Your task to perform on an android device: Clear the cart on walmart. Search for "razer blackwidow" on walmart, select the first entry, and add it to the cart. Image 0: 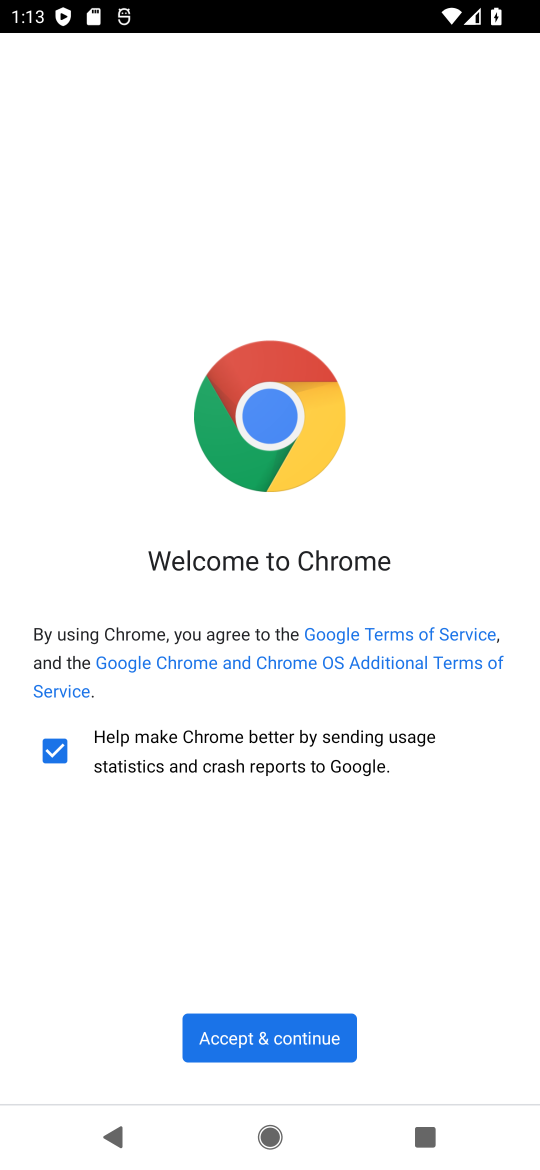
Step 0: press home button
Your task to perform on an android device: Clear the cart on walmart. Search for "razer blackwidow" on walmart, select the first entry, and add it to the cart. Image 1: 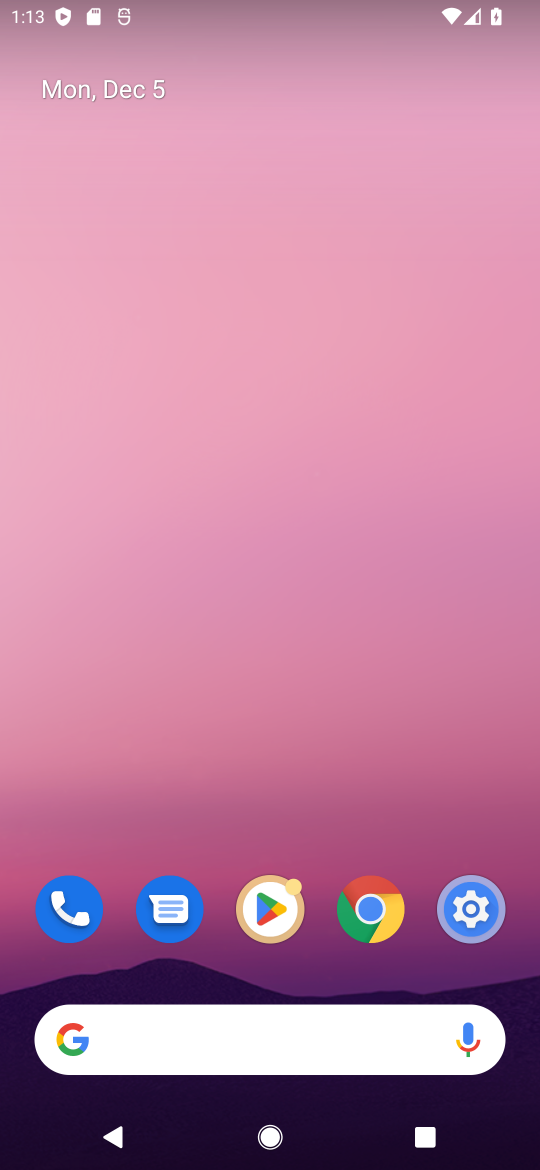
Step 1: drag from (287, 602) to (278, 99)
Your task to perform on an android device: Clear the cart on walmart. Search for "razer blackwidow" on walmart, select the first entry, and add it to the cart. Image 2: 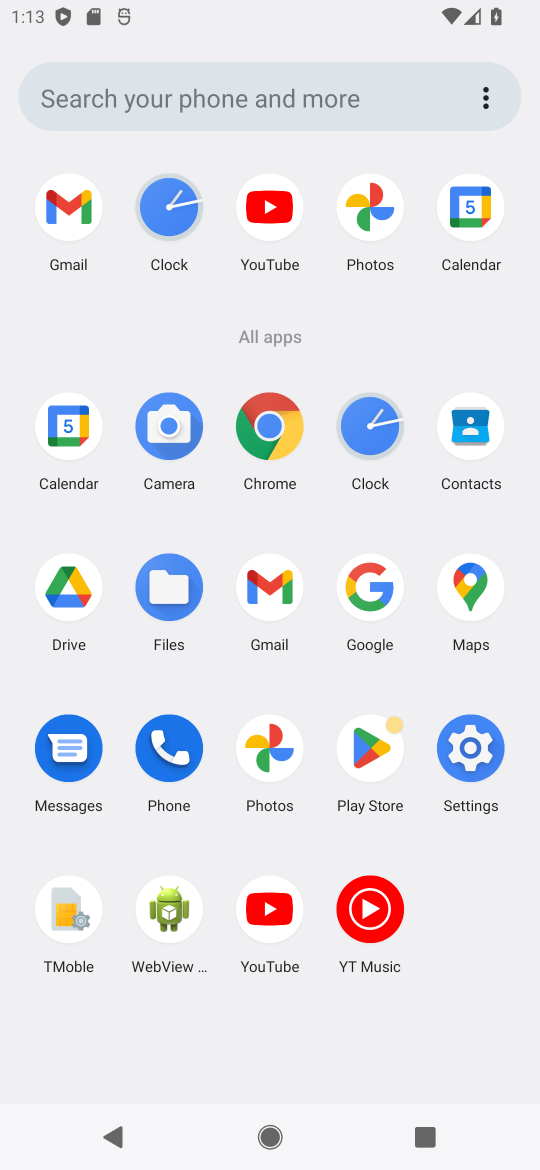
Step 2: click (361, 587)
Your task to perform on an android device: Clear the cart on walmart. Search for "razer blackwidow" on walmart, select the first entry, and add it to the cart. Image 3: 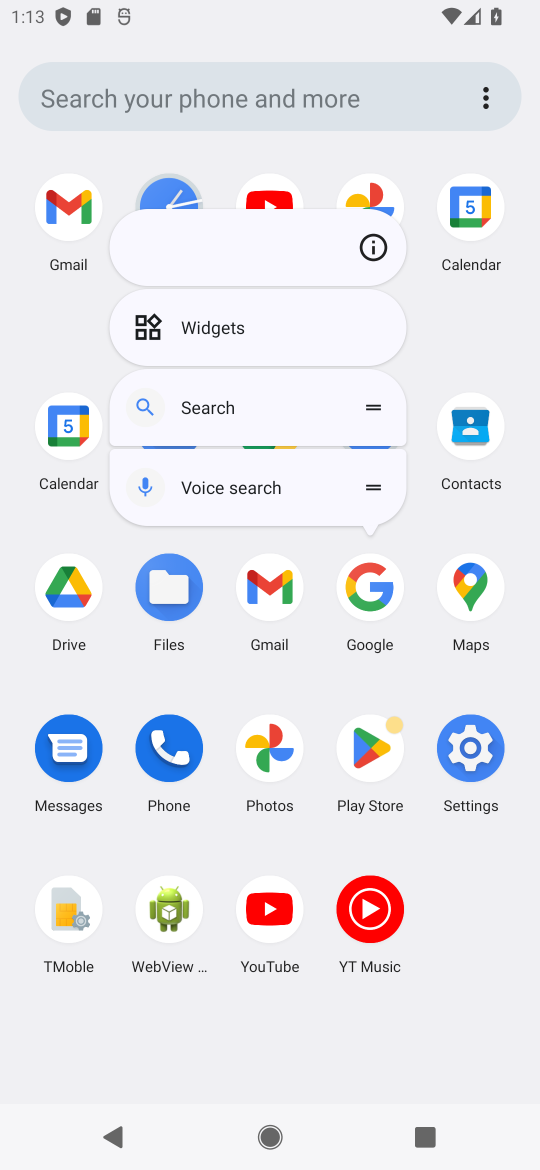
Step 3: click (361, 587)
Your task to perform on an android device: Clear the cart on walmart. Search for "razer blackwidow" on walmart, select the first entry, and add it to the cart. Image 4: 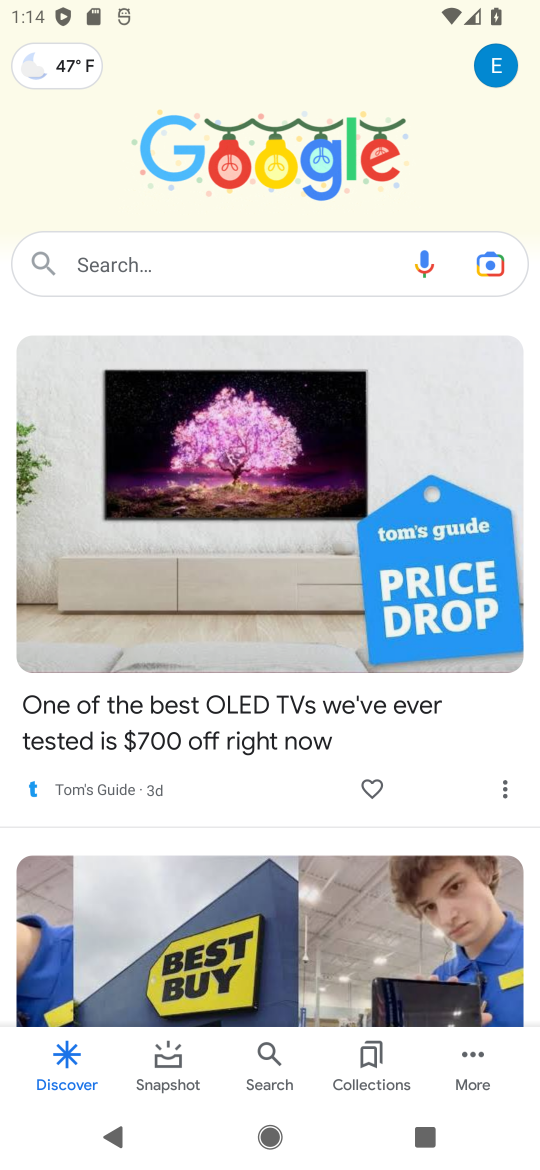
Step 4: click (254, 268)
Your task to perform on an android device: Clear the cart on walmart. Search for "razer blackwidow" on walmart, select the first entry, and add it to the cart. Image 5: 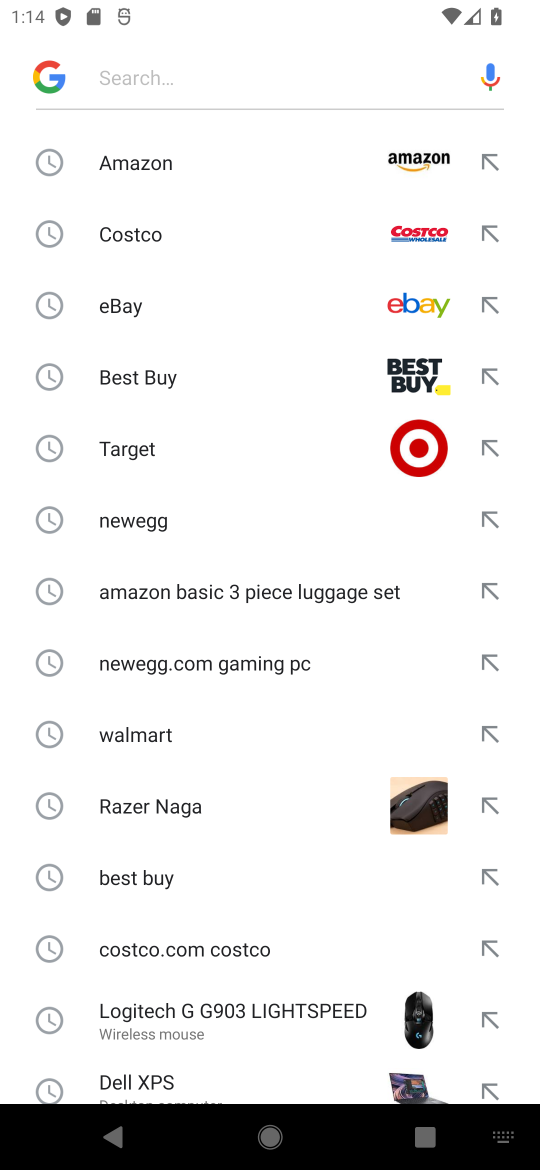
Step 5: drag from (156, 748) to (157, 236)
Your task to perform on an android device: Clear the cart on walmart. Search for "razer blackwidow" on walmart, select the first entry, and add it to the cart. Image 6: 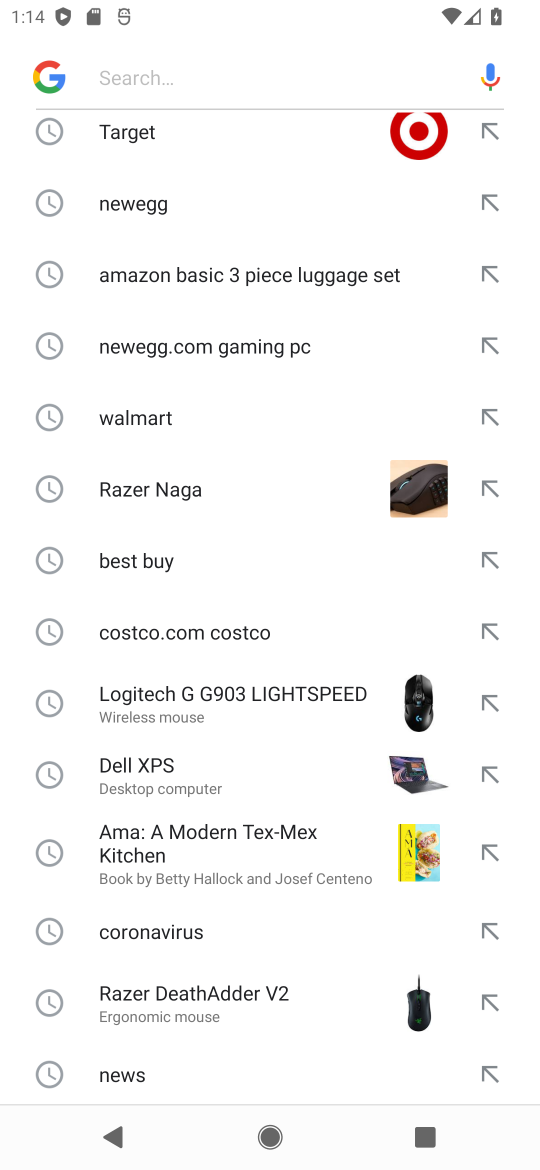
Step 6: drag from (174, 1012) to (157, 529)
Your task to perform on an android device: Clear the cart on walmart. Search for "razer blackwidow" on walmart, select the first entry, and add it to the cart. Image 7: 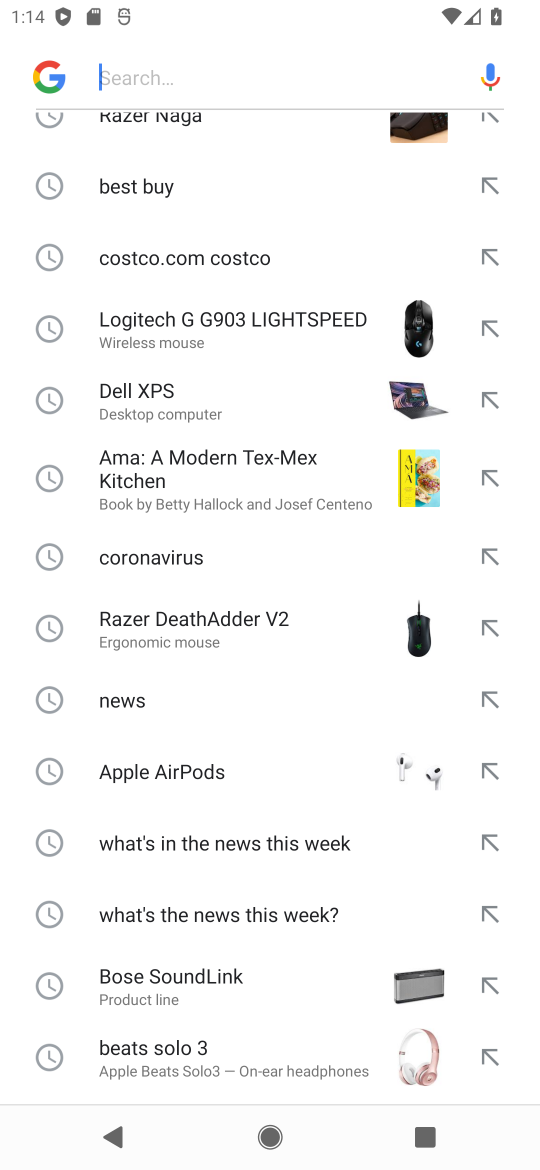
Step 7: type "walmart"
Your task to perform on an android device: Clear the cart on walmart. Search for "razer blackwidow" on walmart, select the first entry, and add it to the cart. Image 8: 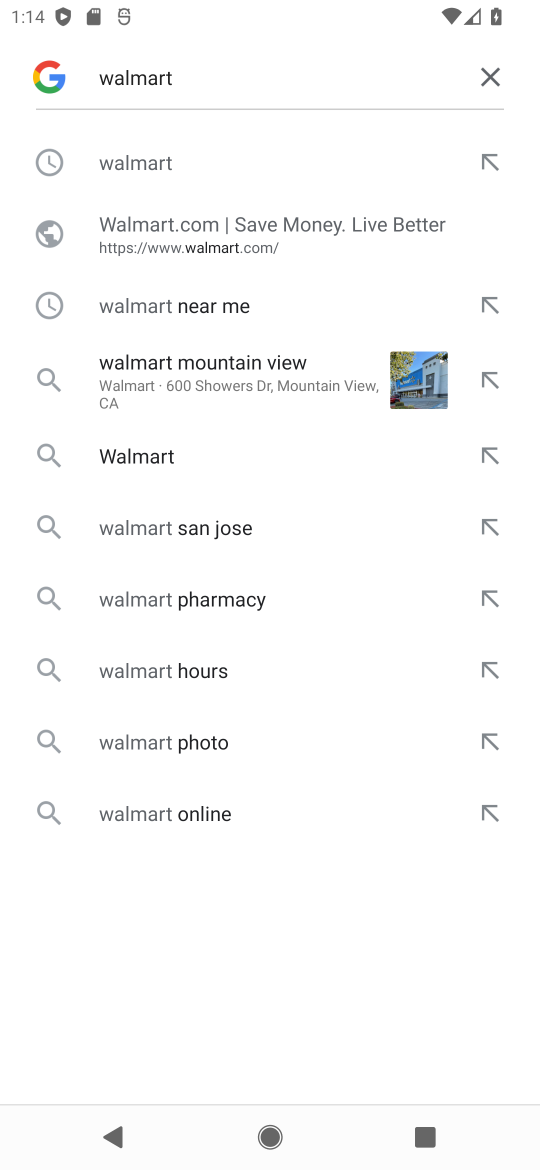
Step 8: click (174, 235)
Your task to perform on an android device: Clear the cart on walmart. Search for "razer blackwidow" on walmart, select the first entry, and add it to the cart. Image 9: 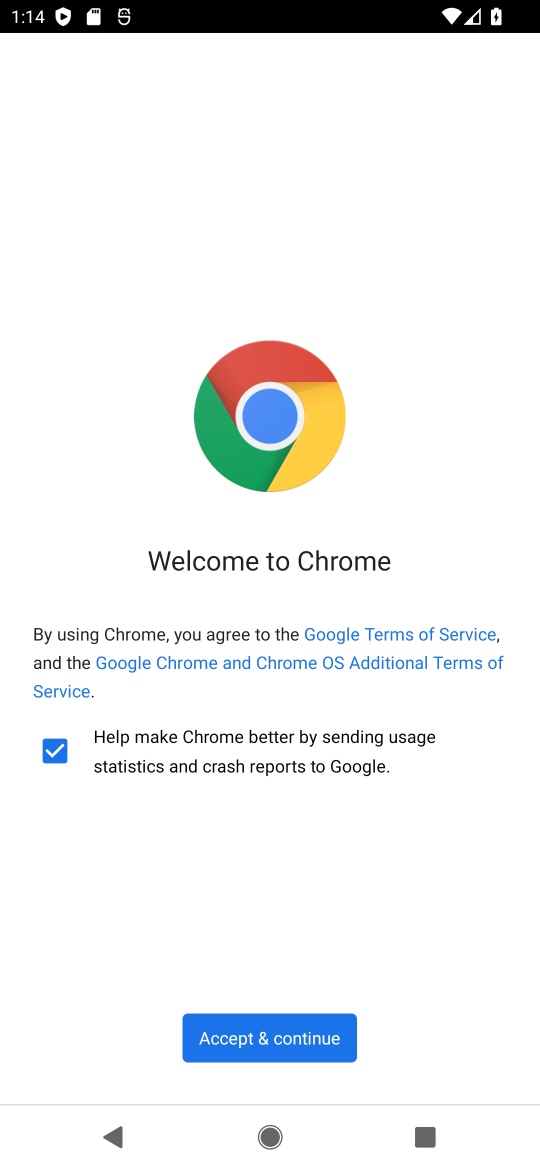
Step 9: click (281, 1038)
Your task to perform on an android device: Clear the cart on walmart. Search for "razer blackwidow" on walmart, select the first entry, and add it to the cart. Image 10: 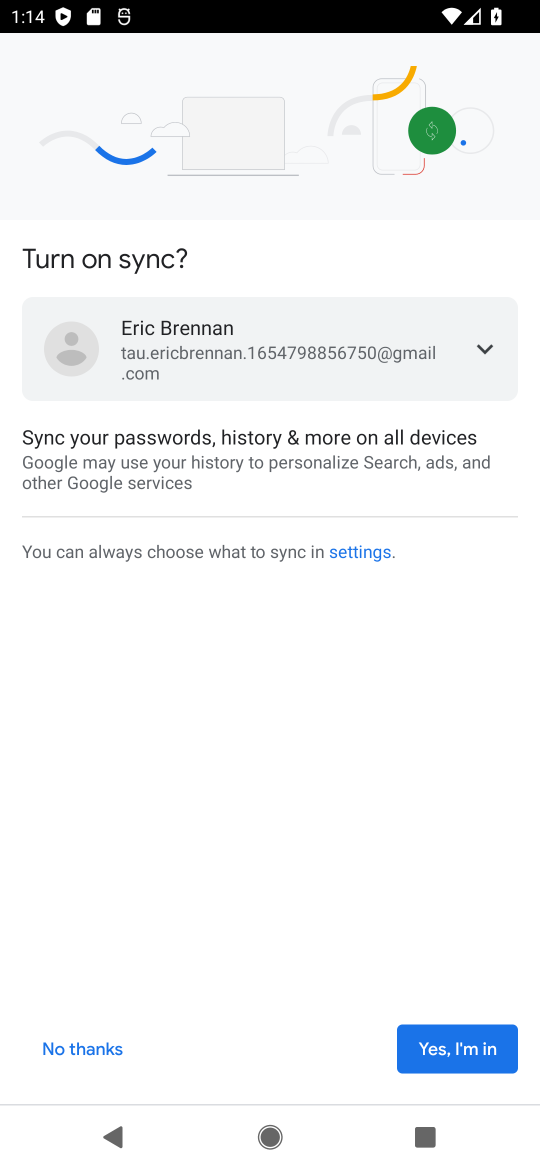
Step 10: click (404, 1063)
Your task to perform on an android device: Clear the cart on walmart. Search for "razer blackwidow" on walmart, select the first entry, and add it to the cart. Image 11: 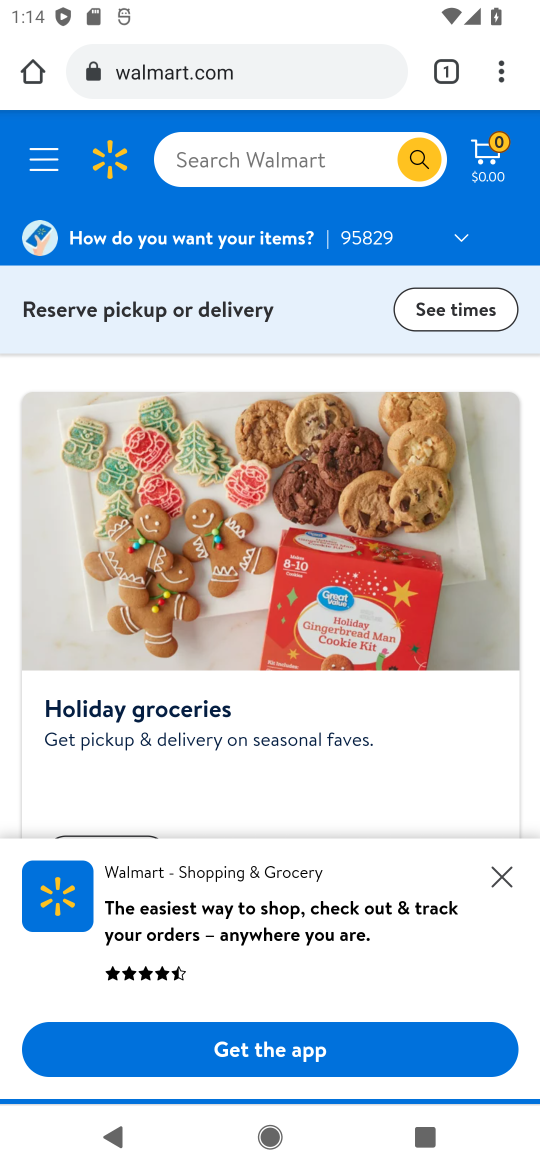
Step 11: click (208, 160)
Your task to perform on an android device: Clear the cart on walmart. Search for "razer blackwidow" on walmart, select the first entry, and add it to the cart. Image 12: 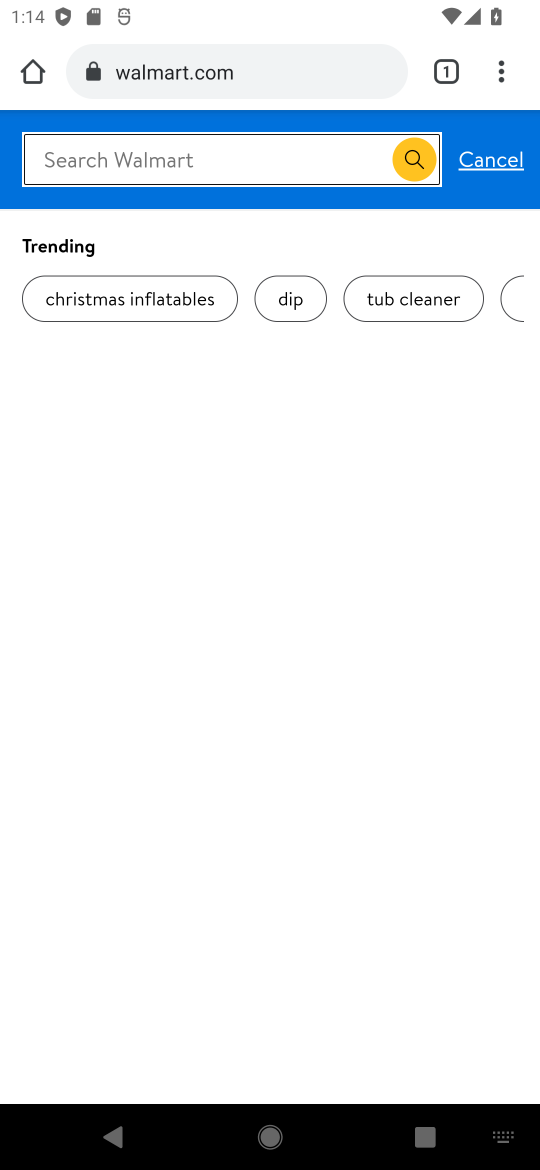
Step 12: type "razer blackwidow"
Your task to perform on an android device: Clear the cart on walmart. Search for "razer blackwidow" on walmart, select the first entry, and add it to the cart. Image 13: 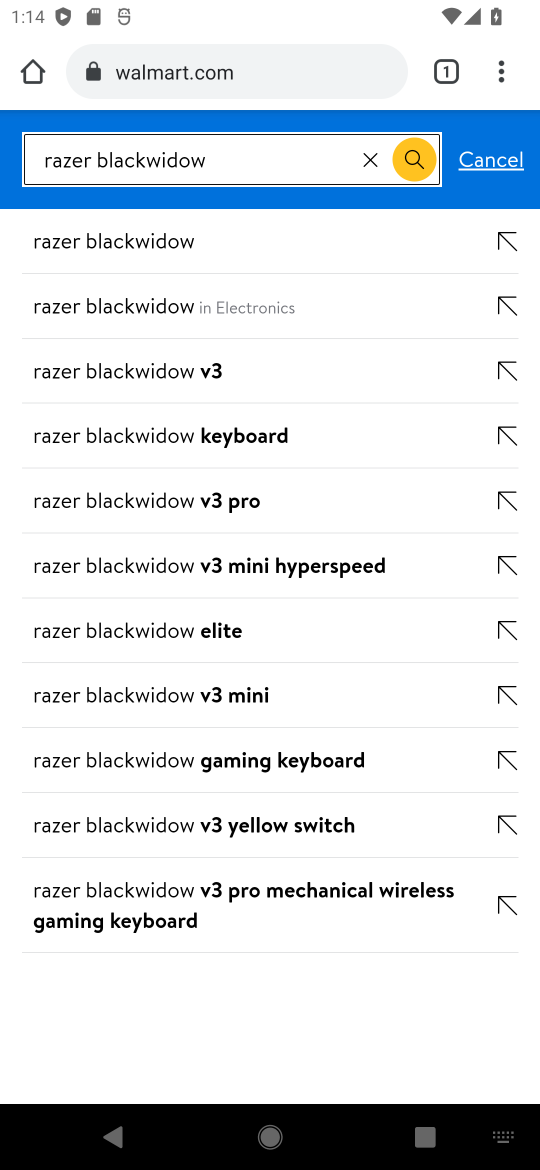
Step 13: click (121, 239)
Your task to perform on an android device: Clear the cart on walmart. Search for "razer blackwidow" on walmart, select the first entry, and add it to the cart. Image 14: 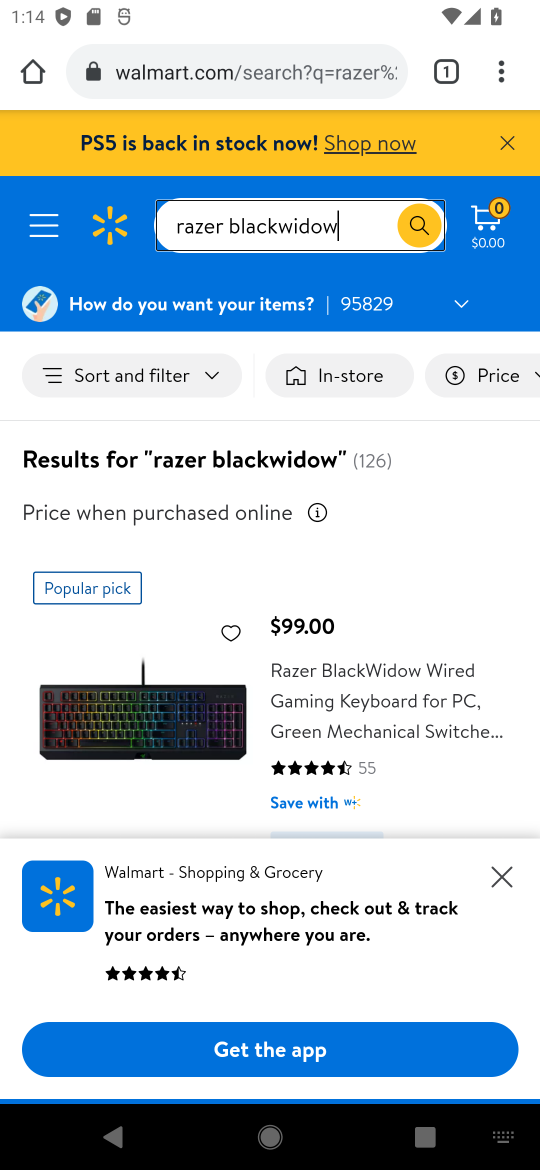
Step 14: drag from (276, 796) to (238, 317)
Your task to perform on an android device: Clear the cart on walmart. Search for "razer blackwidow" on walmart, select the first entry, and add it to the cart. Image 15: 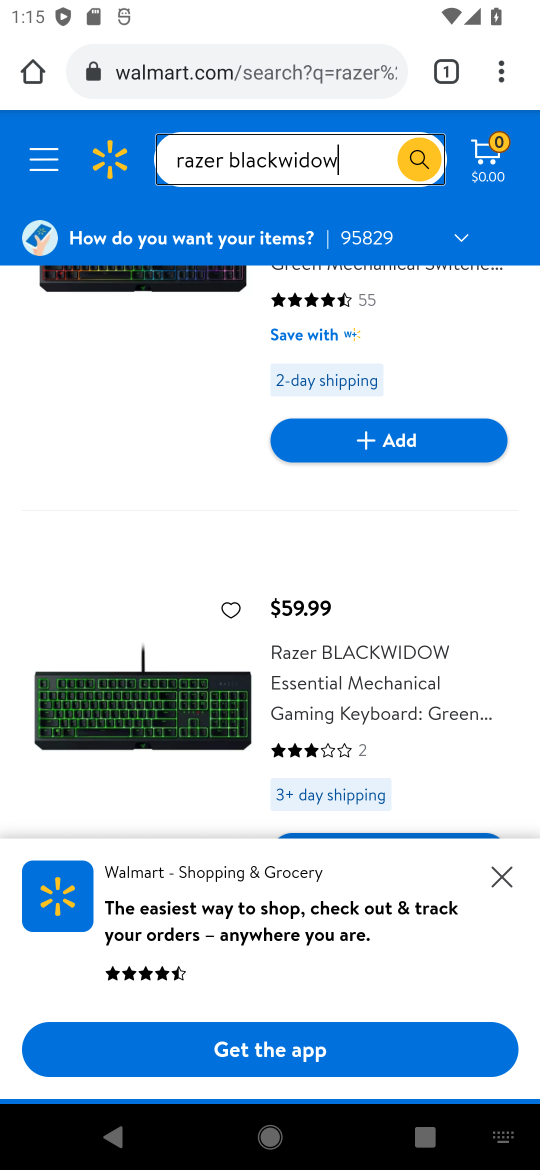
Step 15: click (407, 444)
Your task to perform on an android device: Clear the cart on walmart. Search for "razer blackwidow" on walmart, select the first entry, and add it to the cart. Image 16: 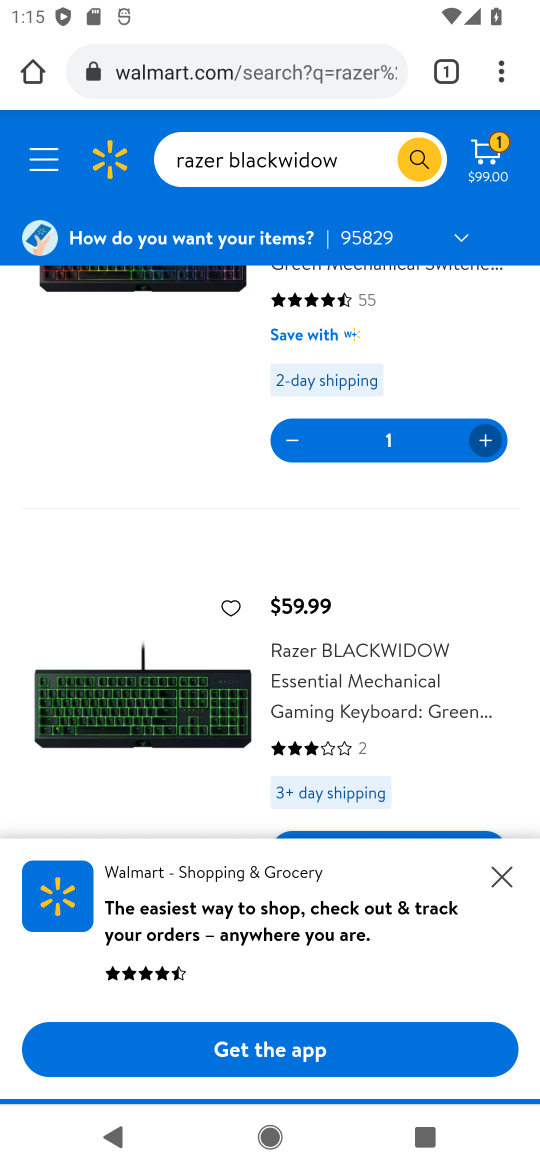
Step 16: click (491, 874)
Your task to perform on an android device: Clear the cart on walmart. Search for "razer blackwidow" on walmart, select the first entry, and add it to the cart. Image 17: 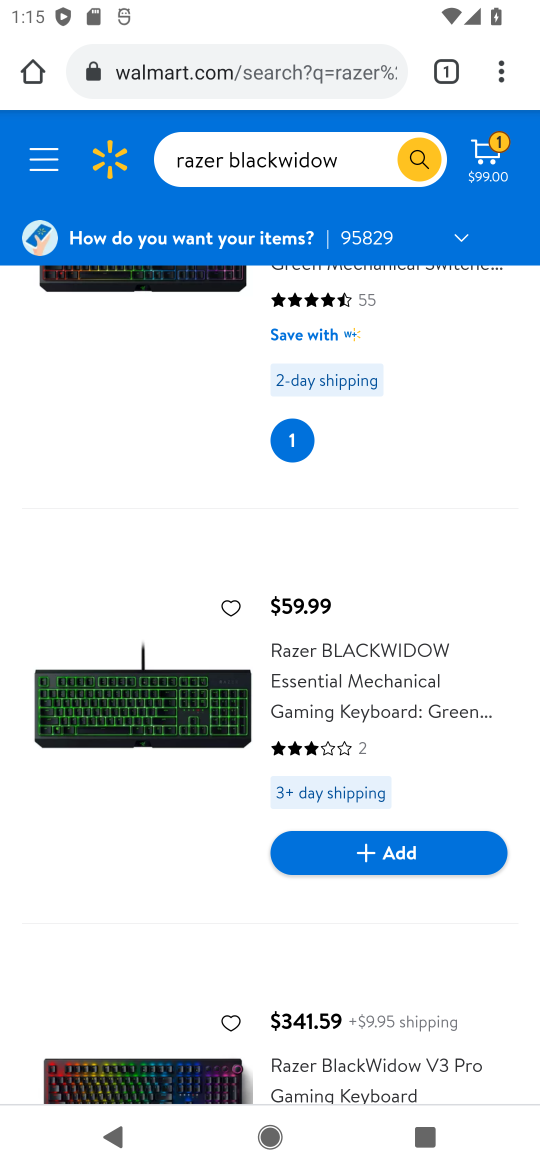
Step 17: click (488, 151)
Your task to perform on an android device: Clear the cart on walmart. Search for "razer blackwidow" on walmart, select the first entry, and add it to the cart. Image 18: 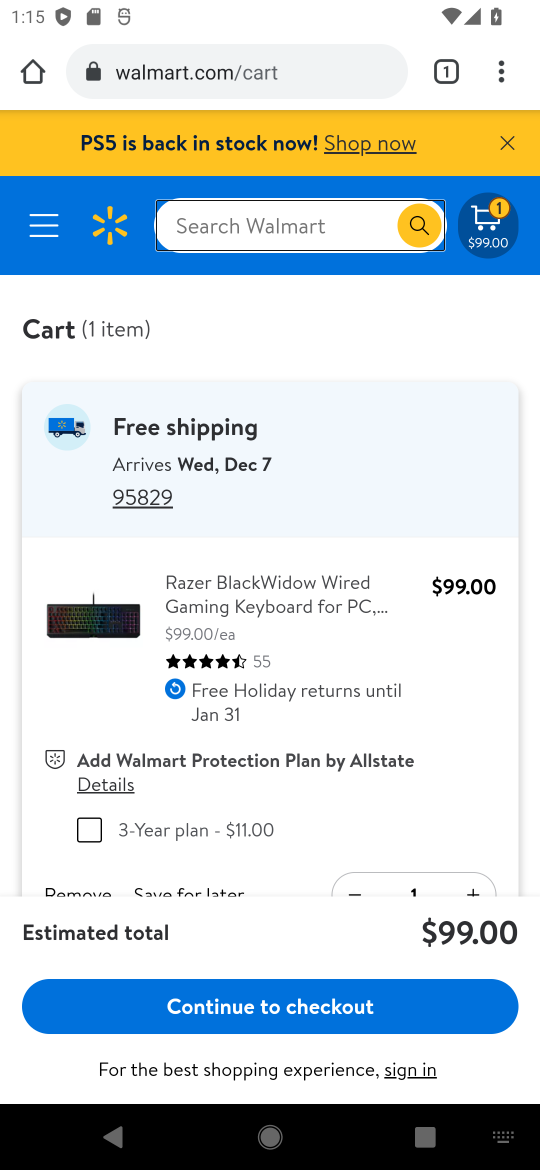
Step 18: click (311, 1008)
Your task to perform on an android device: Clear the cart on walmart. Search for "razer blackwidow" on walmart, select the first entry, and add it to the cart. Image 19: 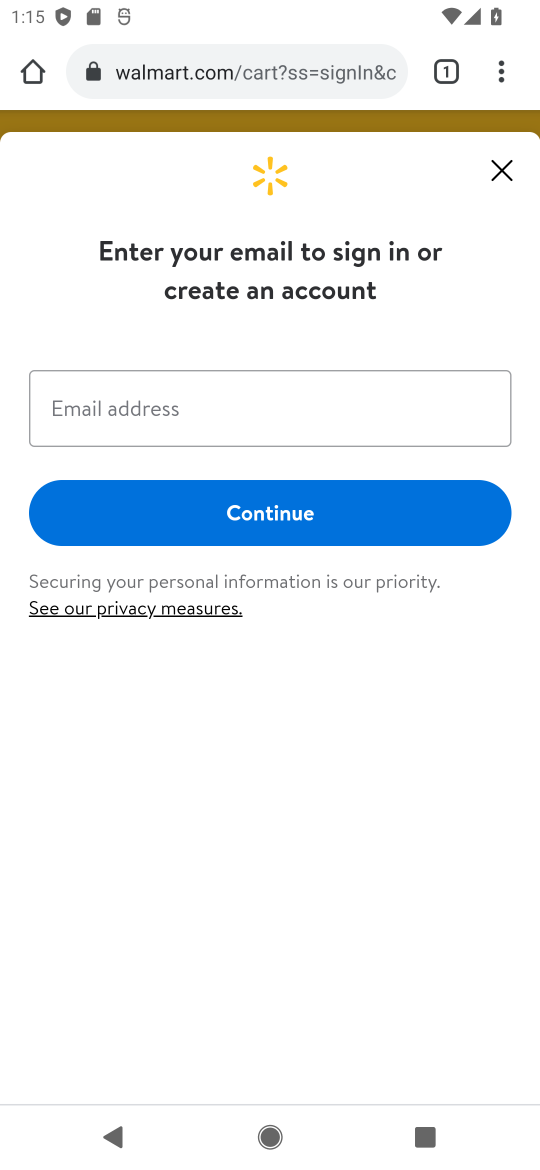
Step 19: task complete